Your task to perform on an android device: allow cookies in the chrome app Image 0: 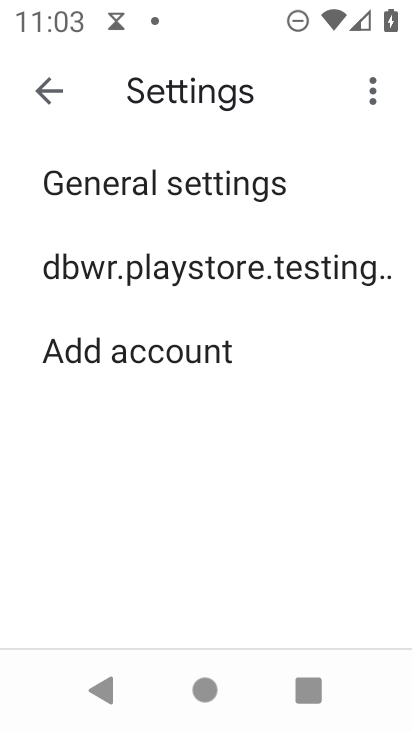
Step 0: press home button
Your task to perform on an android device: allow cookies in the chrome app Image 1: 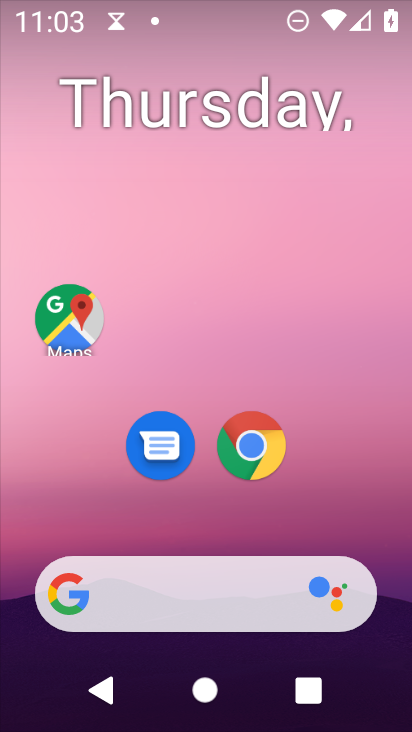
Step 1: click (249, 448)
Your task to perform on an android device: allow cookies in the chrome app Image 2: 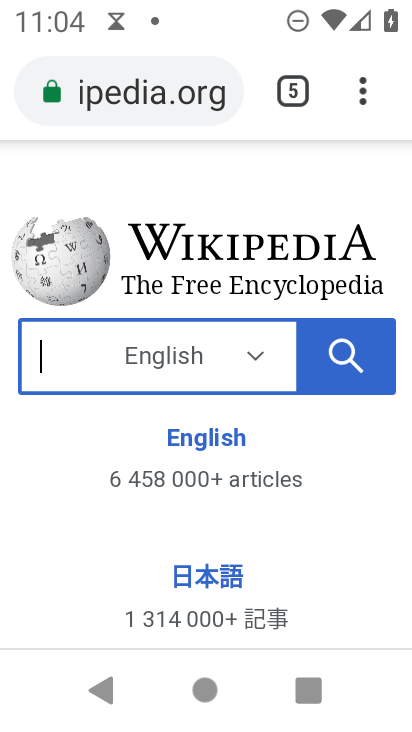
Step 2: click (364, 99)
Your task to perform on an android device: allow cookies in the chrome app Image 3: 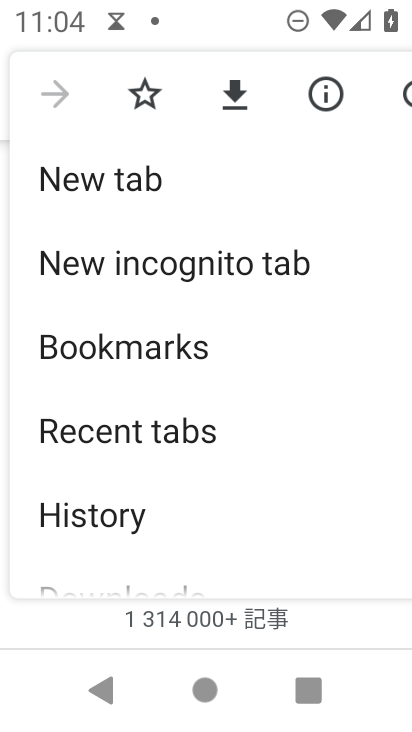
Step 3: drag from (79, 569) to (109, 127)
Your task to perform on an android device: allow cookies in the chrome app Image 4: 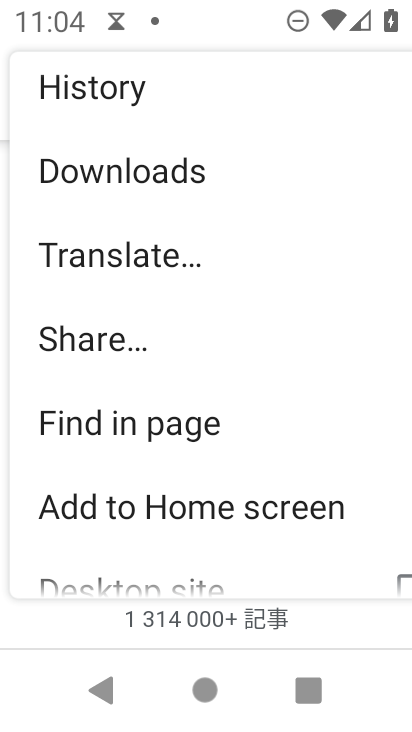
Step 4: drag from (118, 549) to (118, 98)
Your task to perform on an android device: allow cookies in the chrome app Image 5: 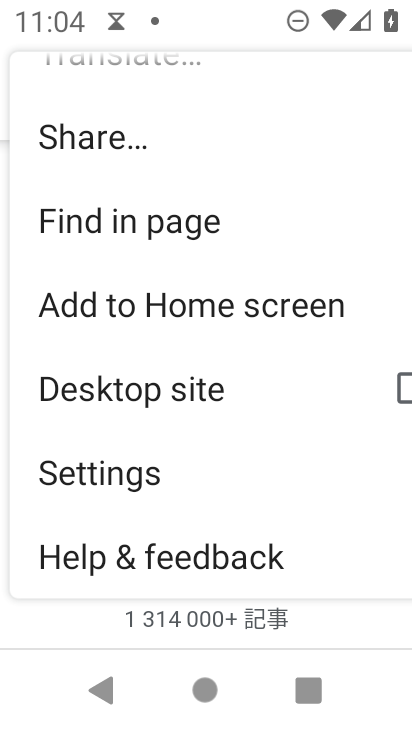
Step 5: click (116, 475)
Your task to perform on an android device: allow cookies in the chrome app Image 6: 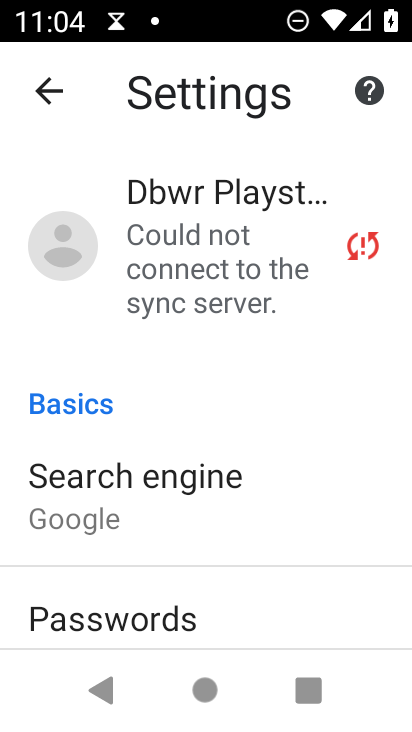
Step 6: drag from (148, 619) to (188, 279)
Your task to perform on an android device: allow cookies in the chrome app Image 7: 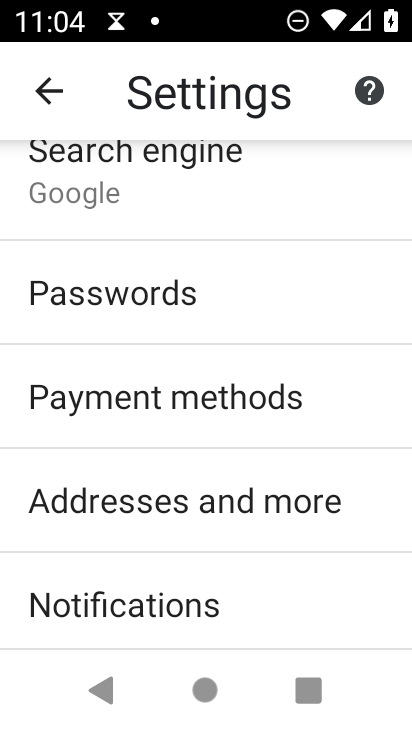
Step 7: drag from (271, 633) to (247, 206)
Your task to perform on an android device: allow cookies in the chrome app Image 8: 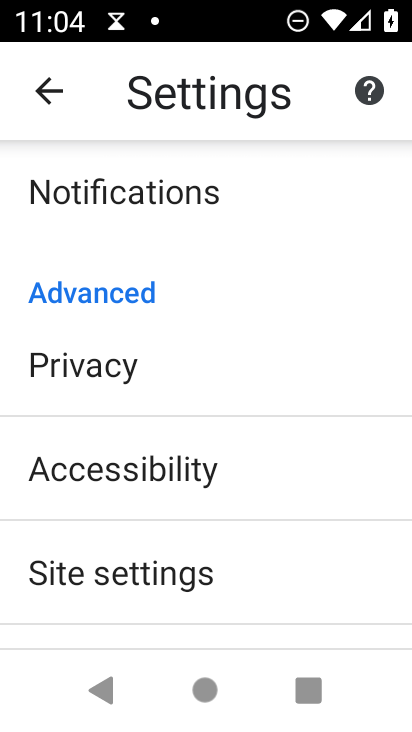
Step 8: drag from (248, 610) to (250, 380)
Your task to perform on an android device: allow cookies in the chrome app Image 9: 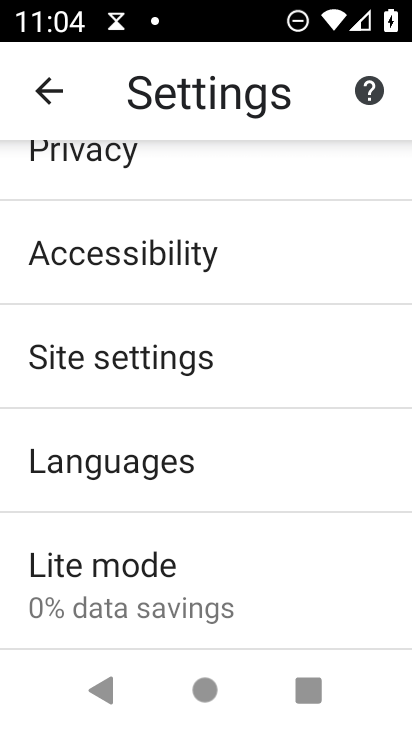
Step 9: click (113, 356)
Your task to perform on an android device: allow cookies in the chrome app Image 10: 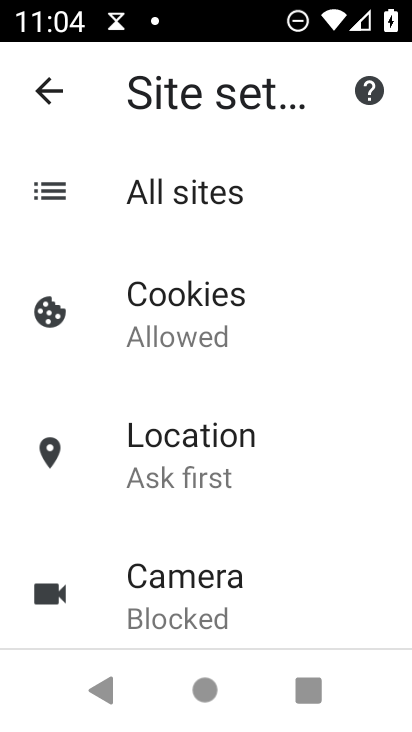
Step 10: click (175, 307)
Your task to perform on an android device: allow cookies in the chrome app Image 11: 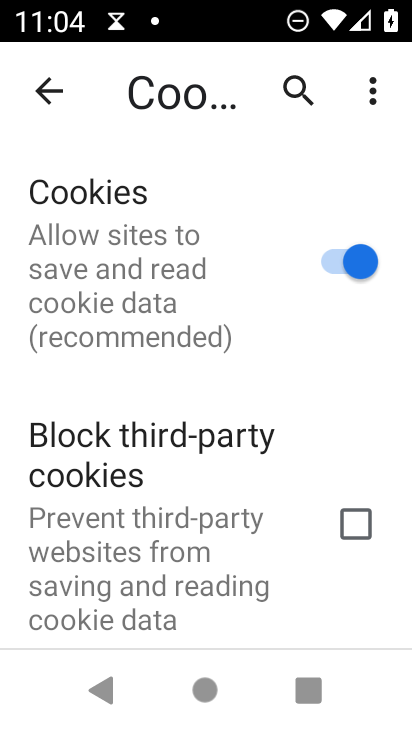
Step 11: task complete